Your task to perform on an android device: View the shopping cart on costco. Search for logitech g910 on costco, select the first entry, add it to the cart, then select checkout. Image 0: 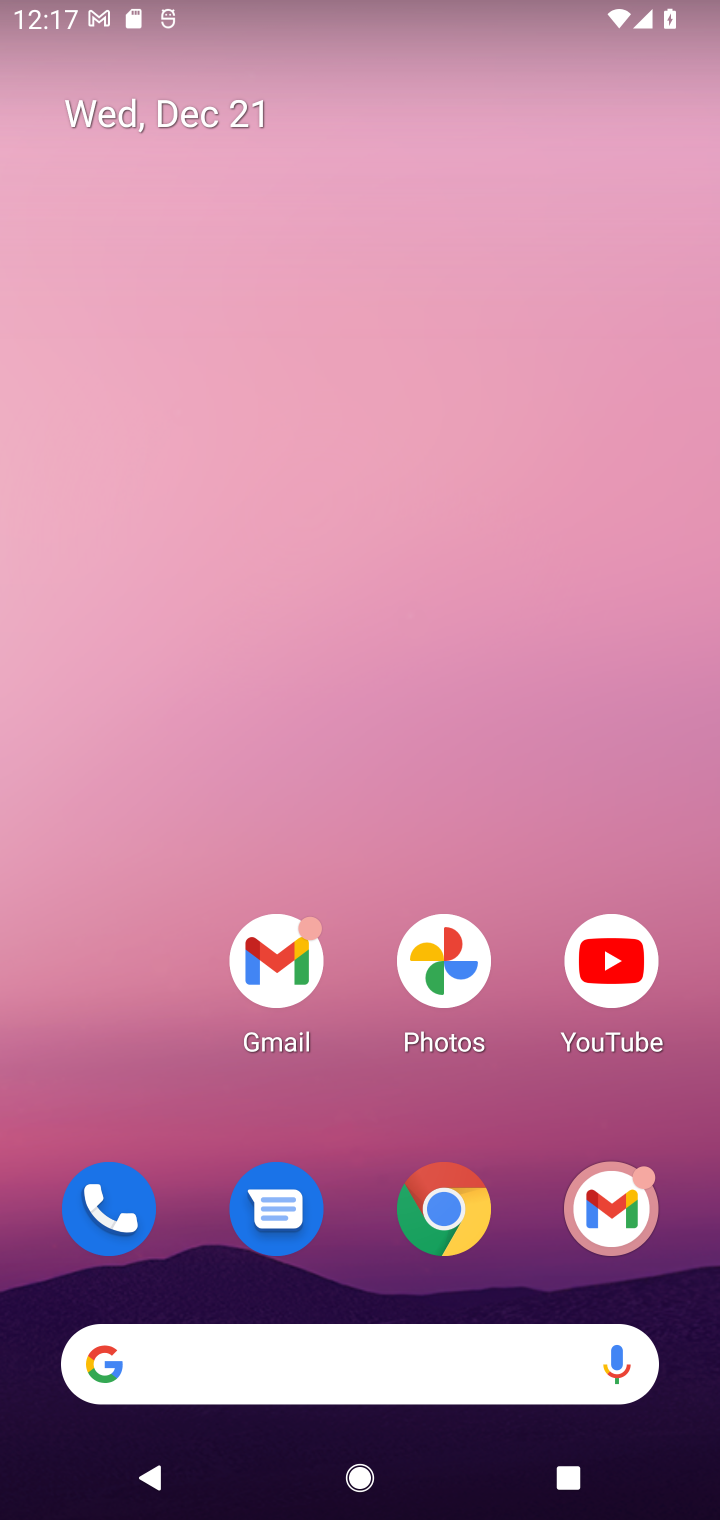
Step 0: click (452, 1205)
Your task to perform on an android device: View the shopping cart on costco. Search for logitech g910 on costco, select the first entry, add it to the cart, then select checkout. Image 1: 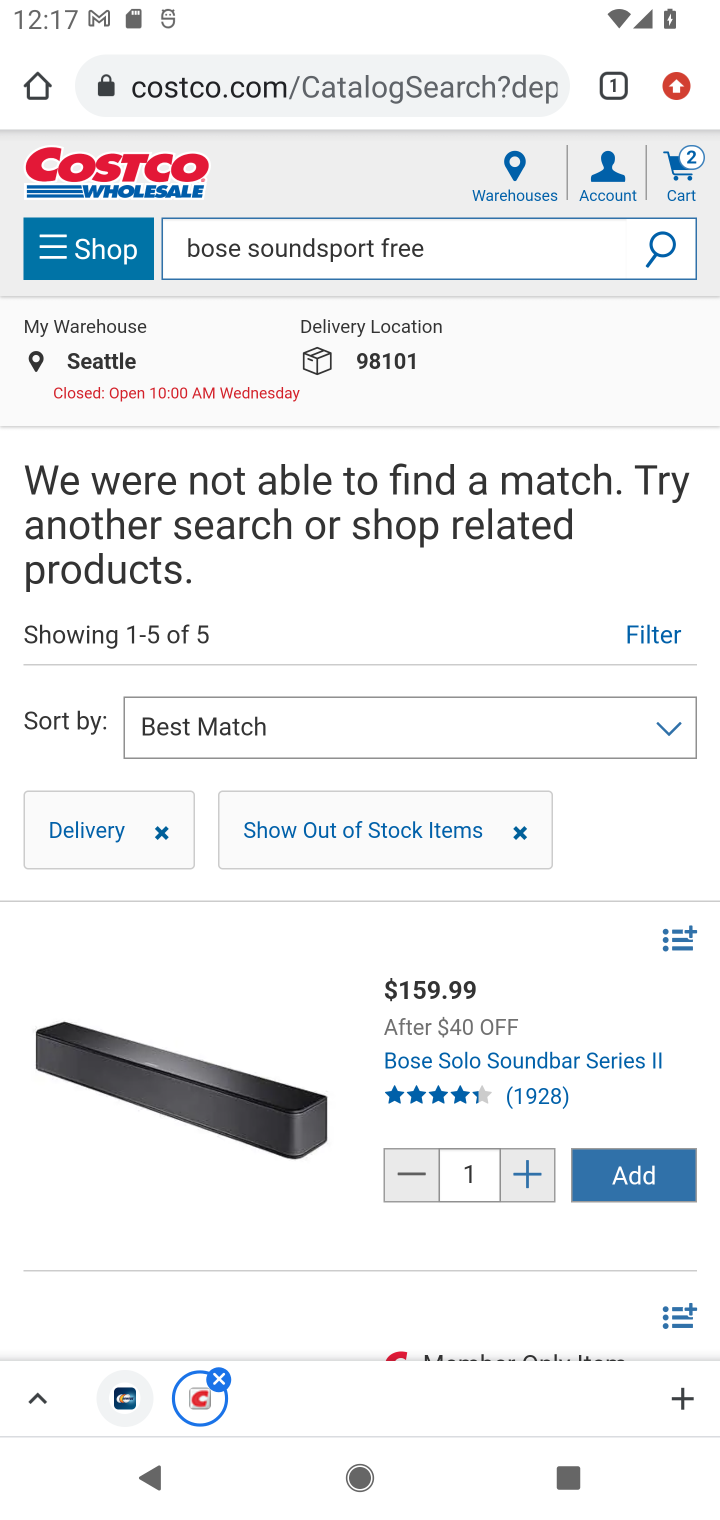
Step 1: click (676, 173)
Your task to perform on an android device: View the shopping cart on costco. Search for logitech g910 on costco, select the first entry, add it to the cart, then select checkout. Image 2: 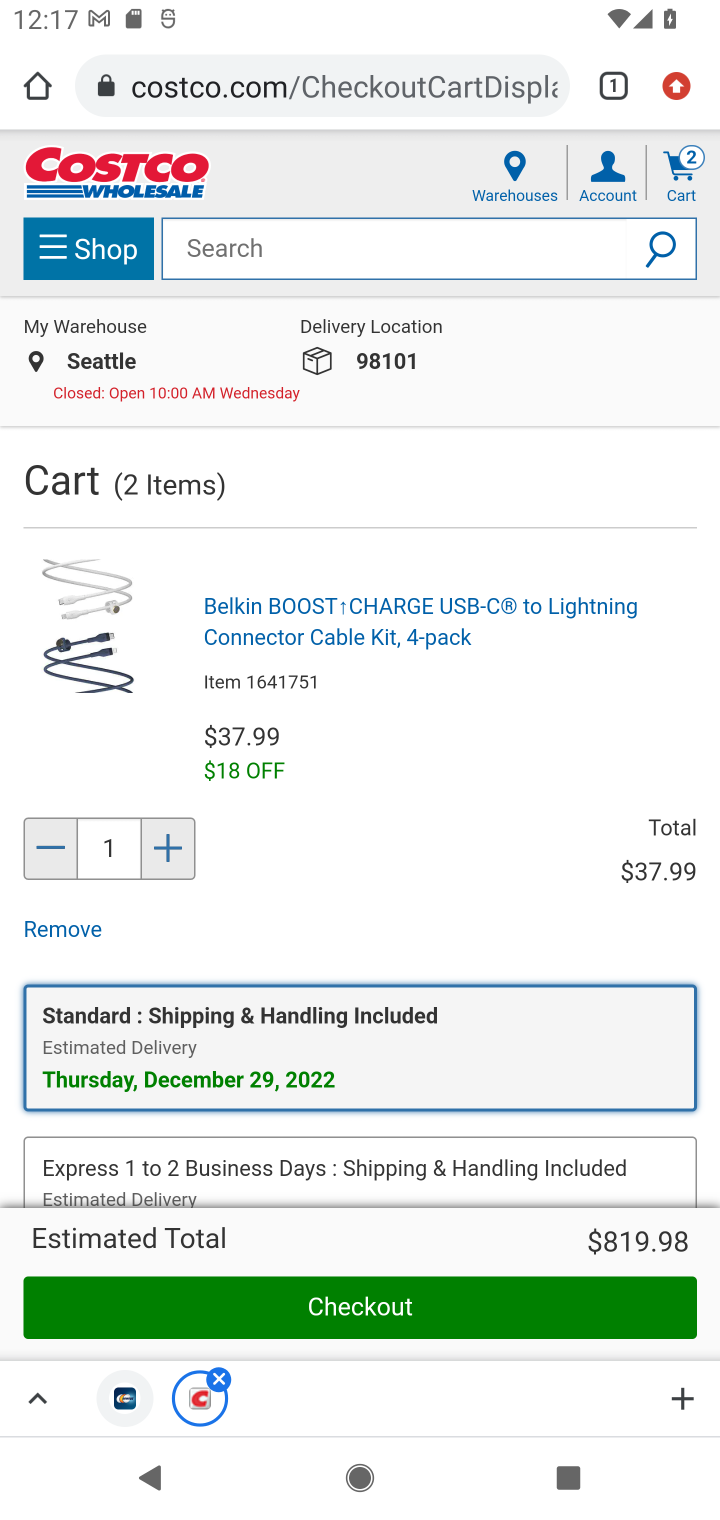
Step 2: drag from (443, 975) to (484, 651)
Your task to perform on an android device: View the shopping cart on costco. Search for logitech g910 on costco, select the first entry, add it to the cart, then select checkout. Image 3: 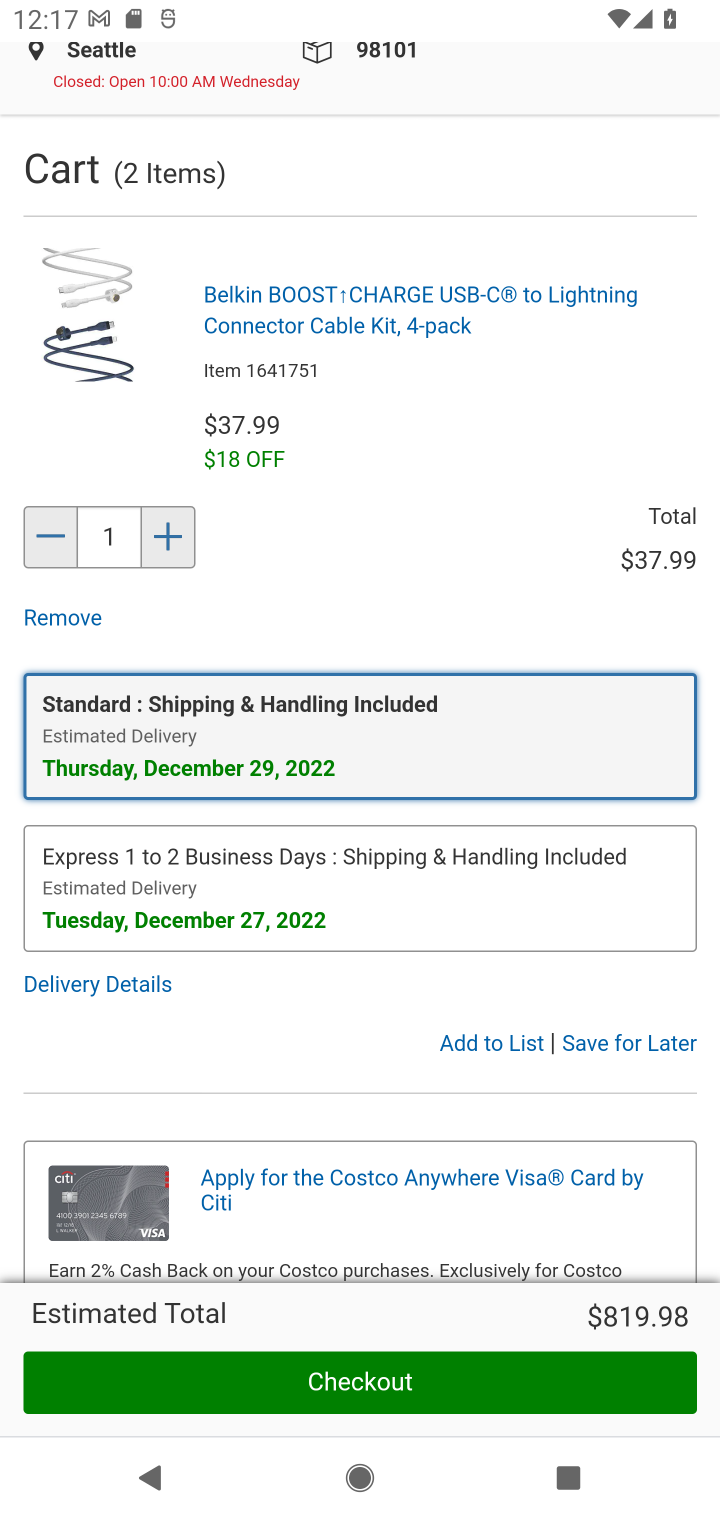
Step 3: drag from (297, 418) to (289, 1121)
Your task to perform on an android device: View the shopping cart on costco. Search for logitech g910 on costco, select the first entry, add it to the cart, then select checkout. Image 4: 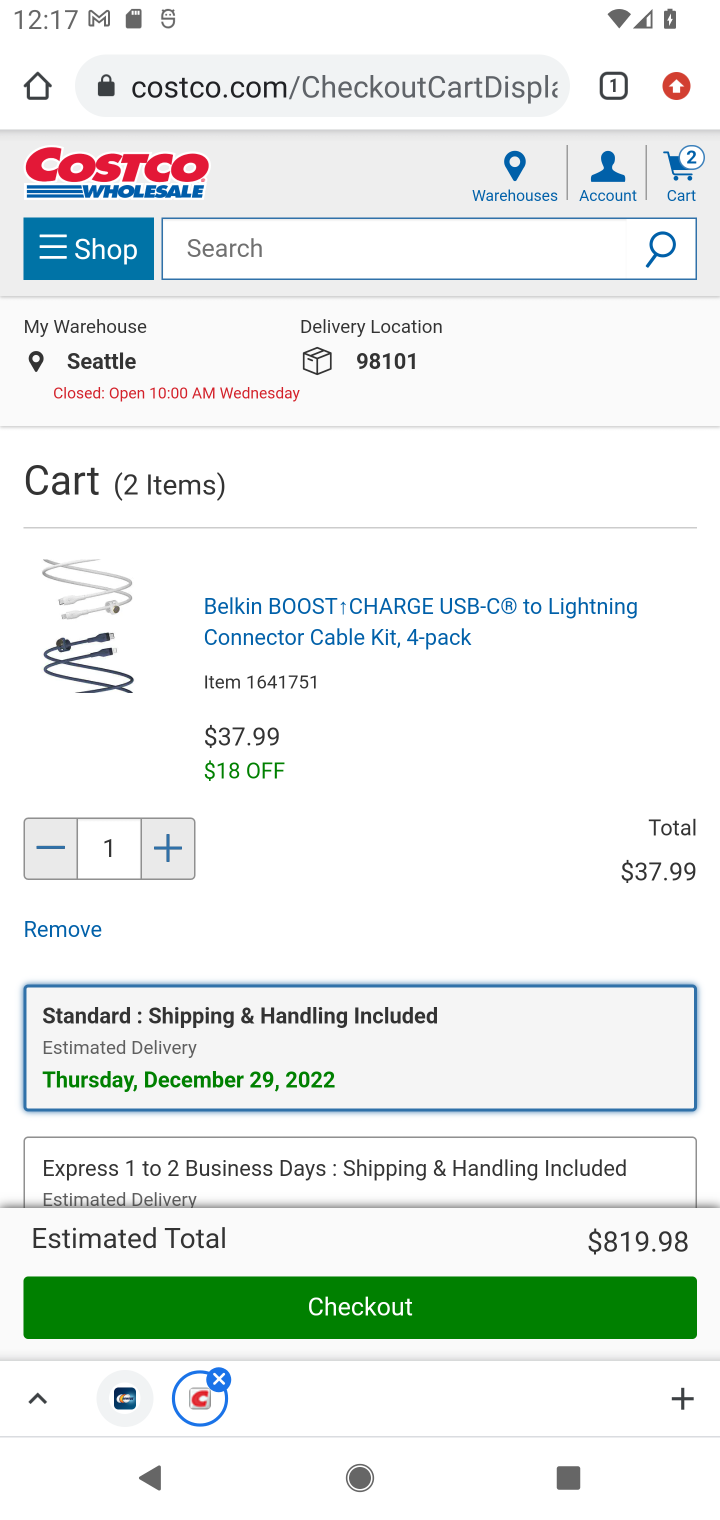
Step 4: click (215, 251)
Your task to perform on an android device: View the shopping cart on costco. Search for logitech g910 on costco, select the first entry, add it to the cart, then select checkout. Image 5: 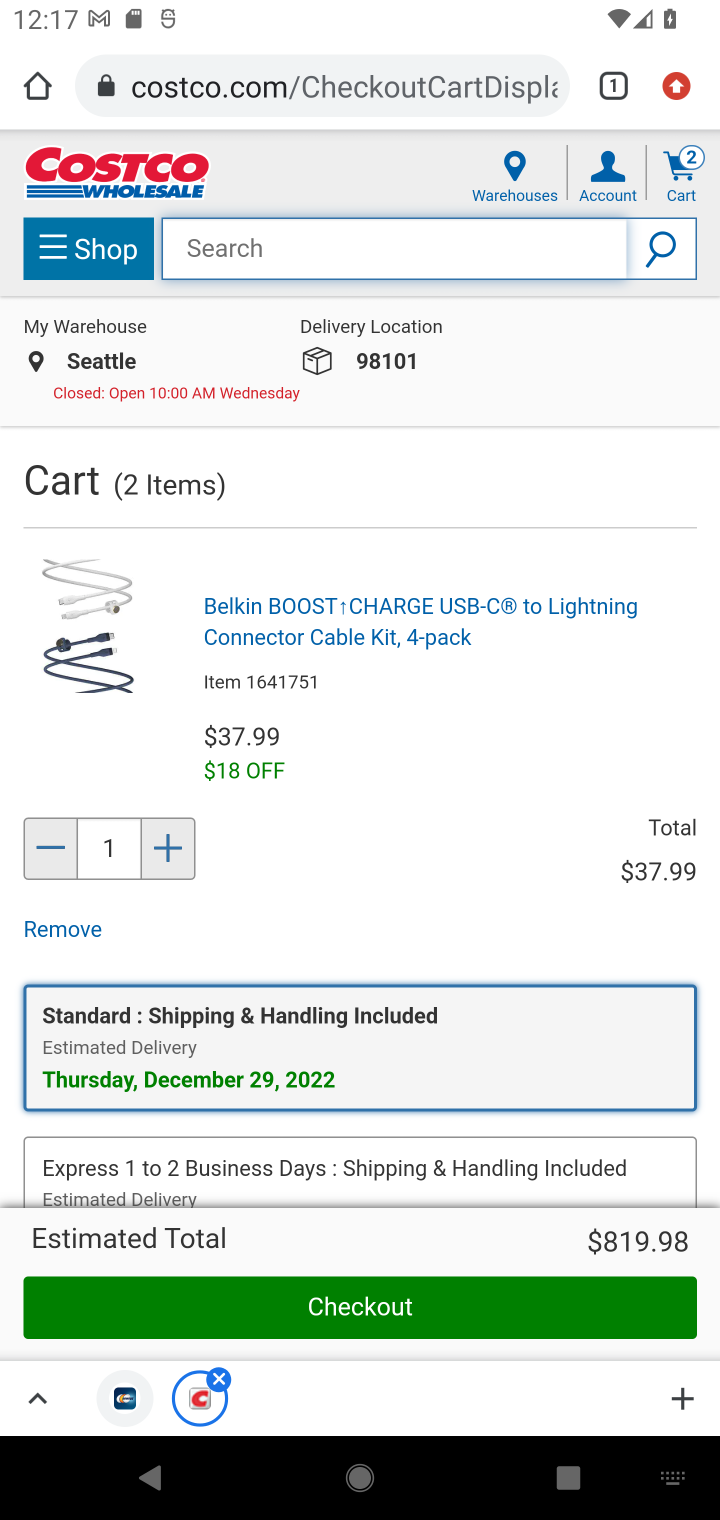
Step 5: type " logitech g910"
Your task to perform on an android device: View the shopping cart on costco. Search for logitech g910 on costco, select the first entry, add it to the cart, then select checkout. Image 6: 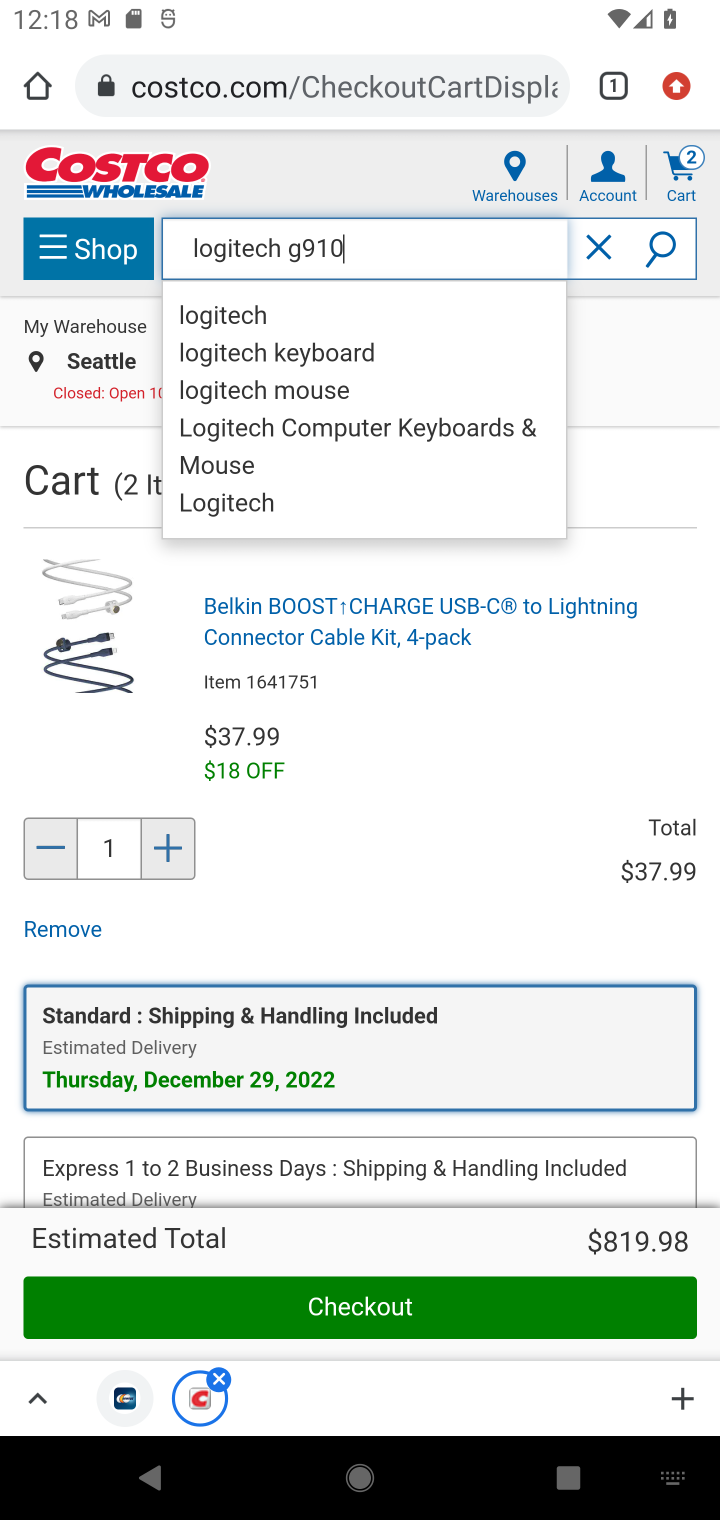
Step 6: click (662, 254)
Your task to perform on an android device: View the shopping cart on costco. Search for logitech g910 on costco, select the first entry, add it to the cart, then select checkout. Image 7: 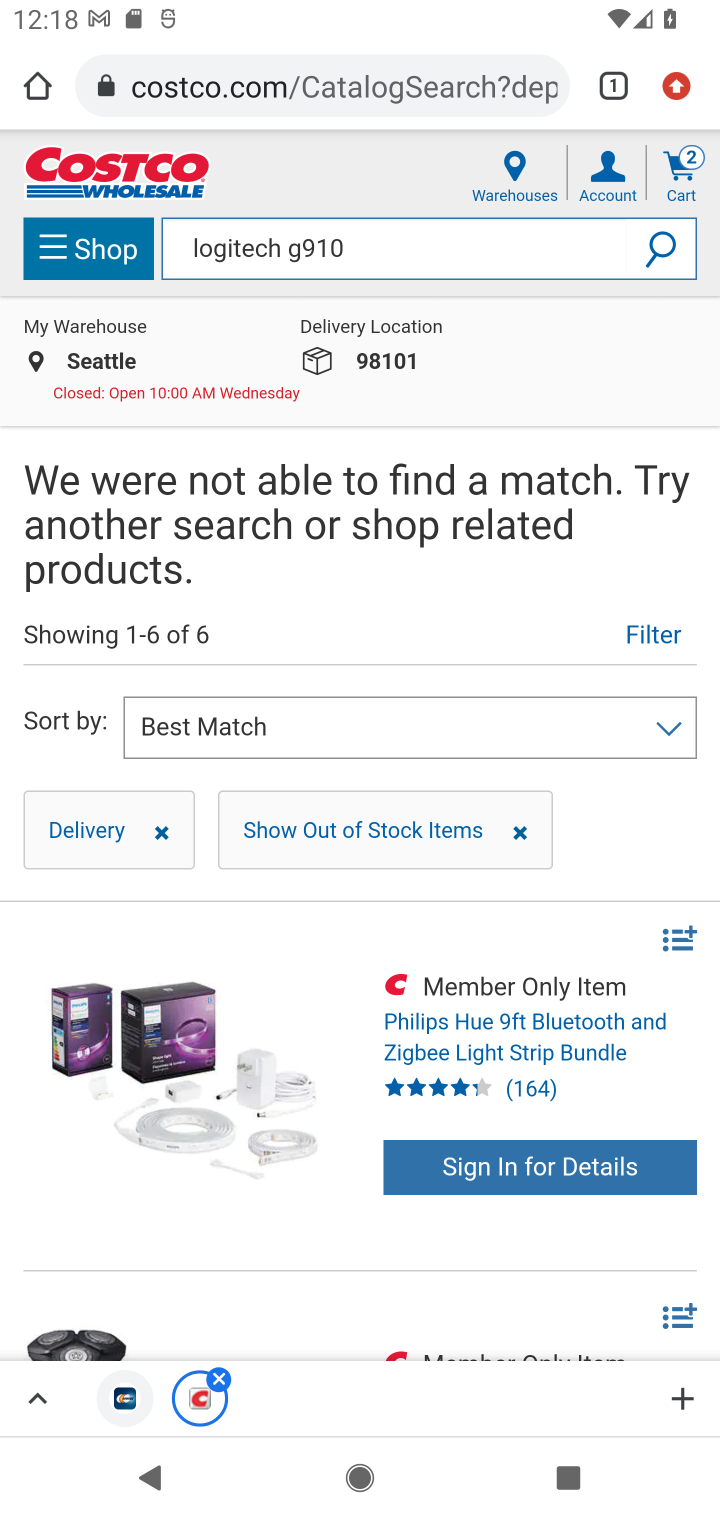
Step 7: click (660, 262)
Your task to perform on an android device: View the shopping cart on costco. Search for logitech g910 on costco, select the first entry, add it to the cart, then select checkout. Image 8: 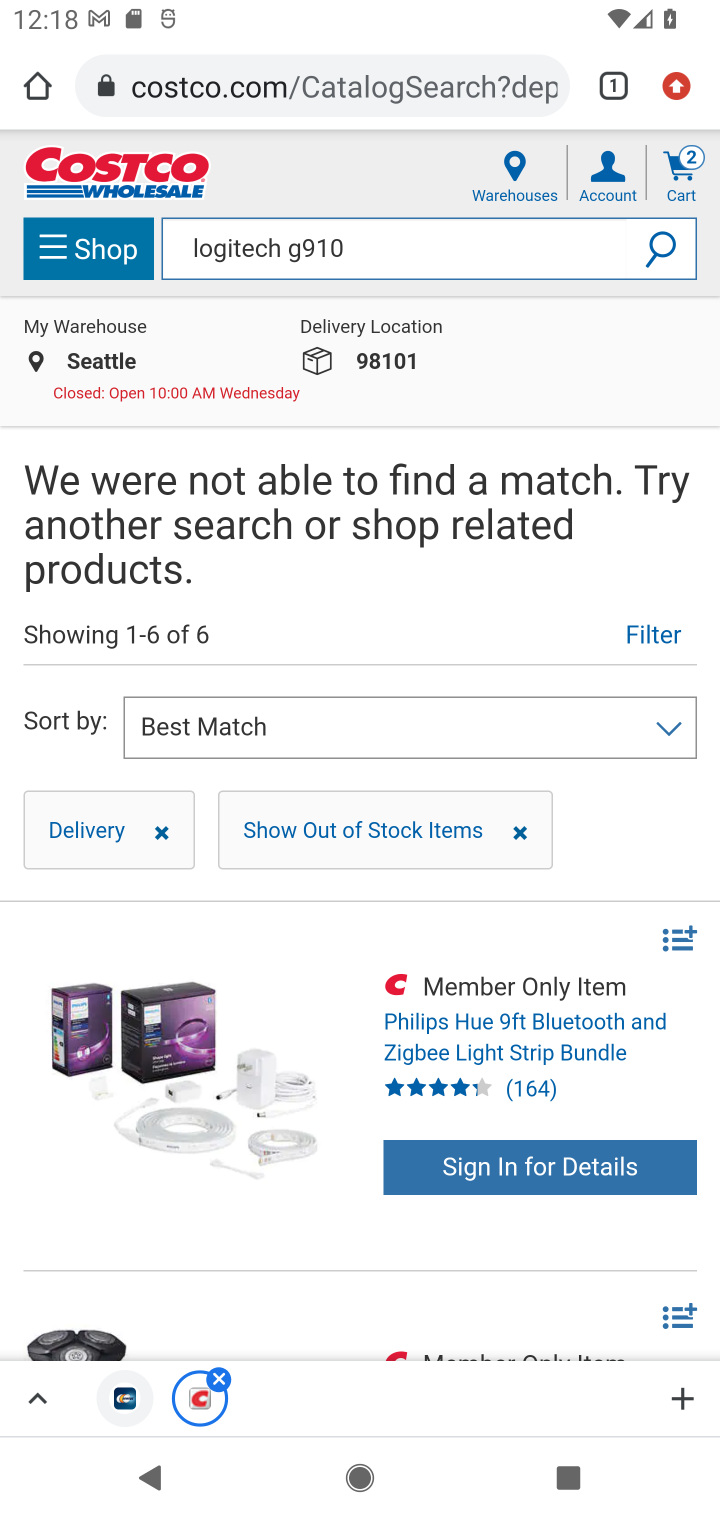
Step 8: task complete